Your task to perform on an android device: Show me productivity apps on the Play Store Image 0: 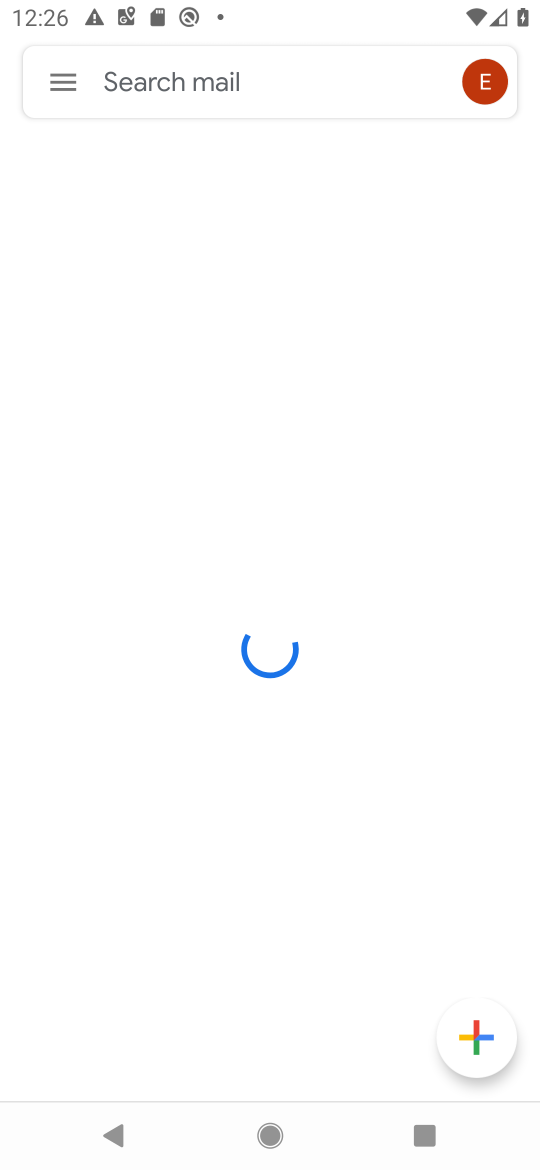
Step 0: press home button
Your task to perform on an android device: Show me productivity apps on the Play Store Image 1: 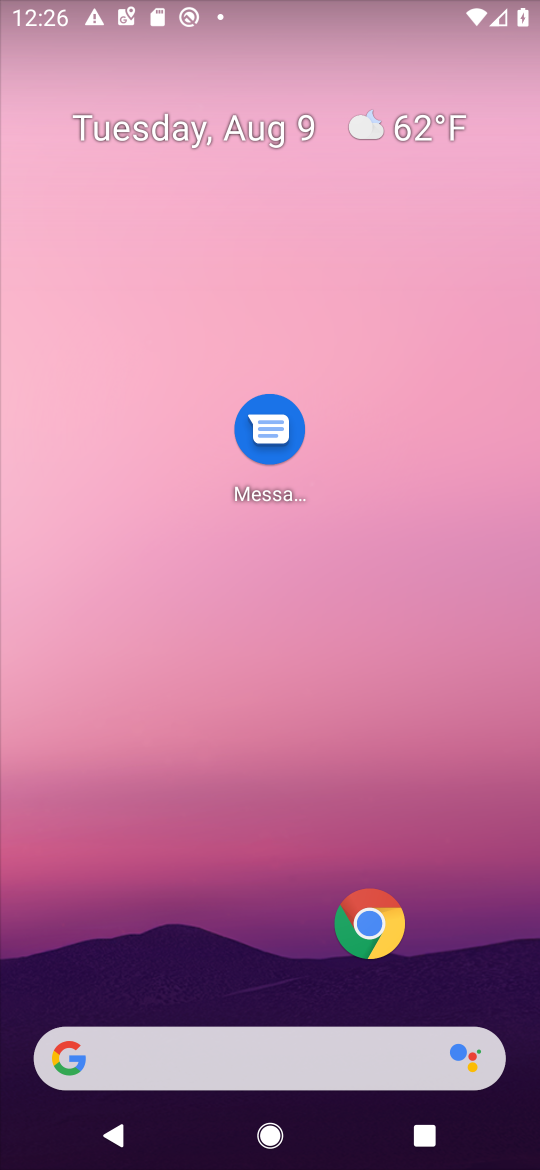
Step 1: drag from (104, 705) to (142, 190)
Your task to perform on an android device: Show me productivity apps on the Play Store Image 2: 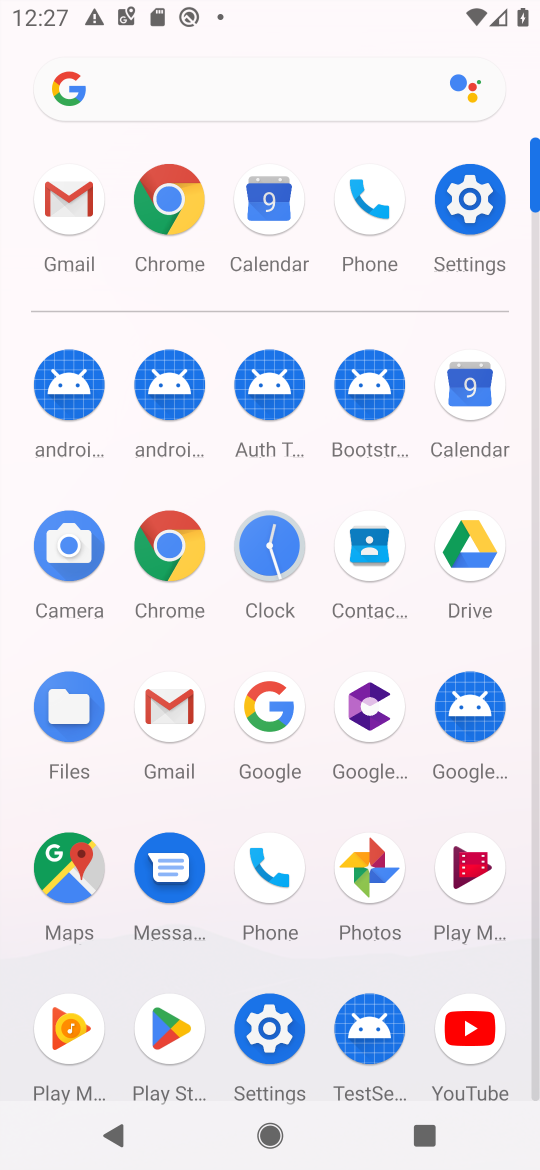
Step 2: click (159, 1038)
Your task to perform on an android device: Show me productivity apps on the Play Store Image 3: 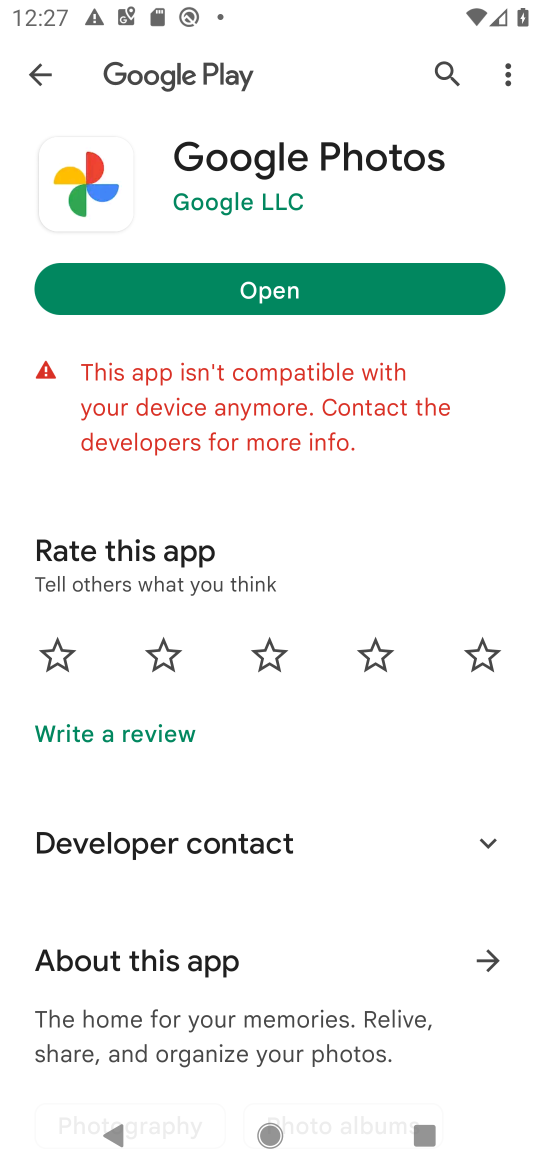
Step 3: click (46, 75)
Your task to perform on an android device: Show me productivity apps on the Play Store Image 4: 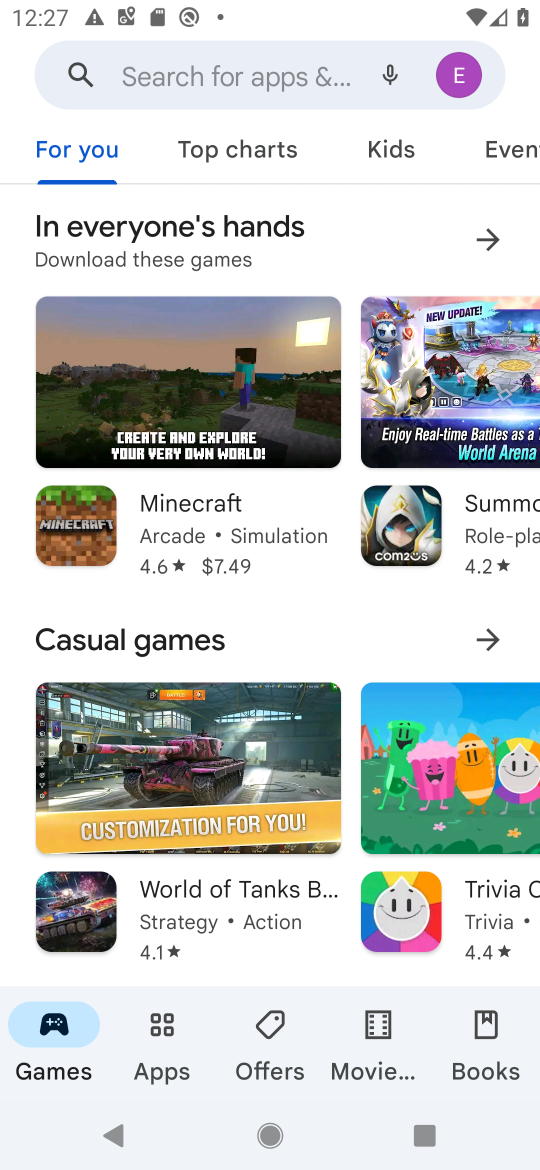
Step 4: click (137, 55)
Your task to perform on an android device: Show me productivity apps on the Play Store Image 5: 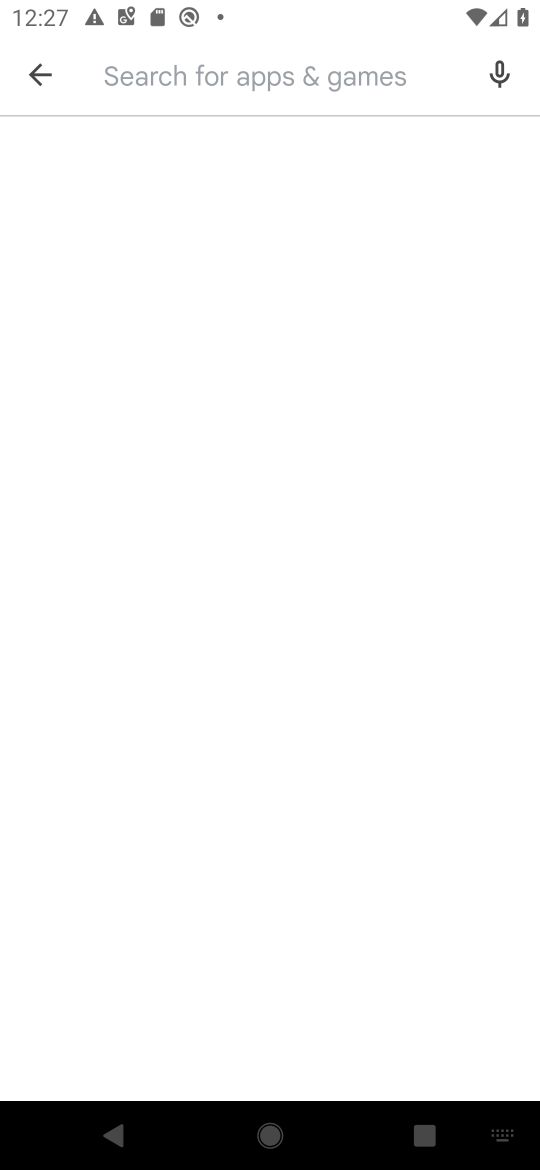
Step 5: type "productivity apps "
Your task to perform on an android device: Show me productivity apps on the Play Store Image 6: 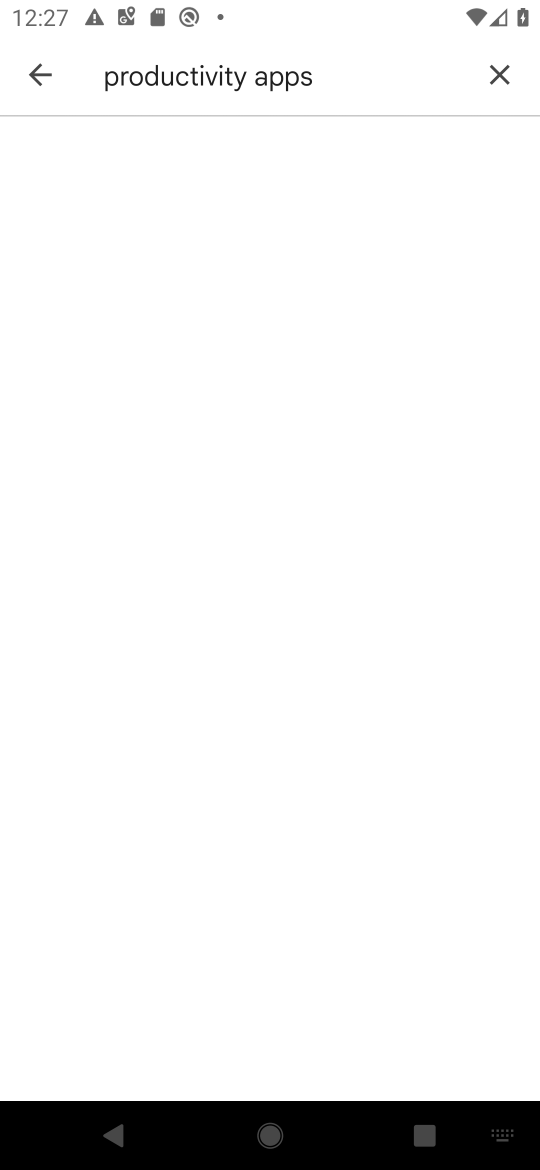
Step 6: type ""
Your task to perform on an android device: Show me productivity apps on the Play Store Image 7: 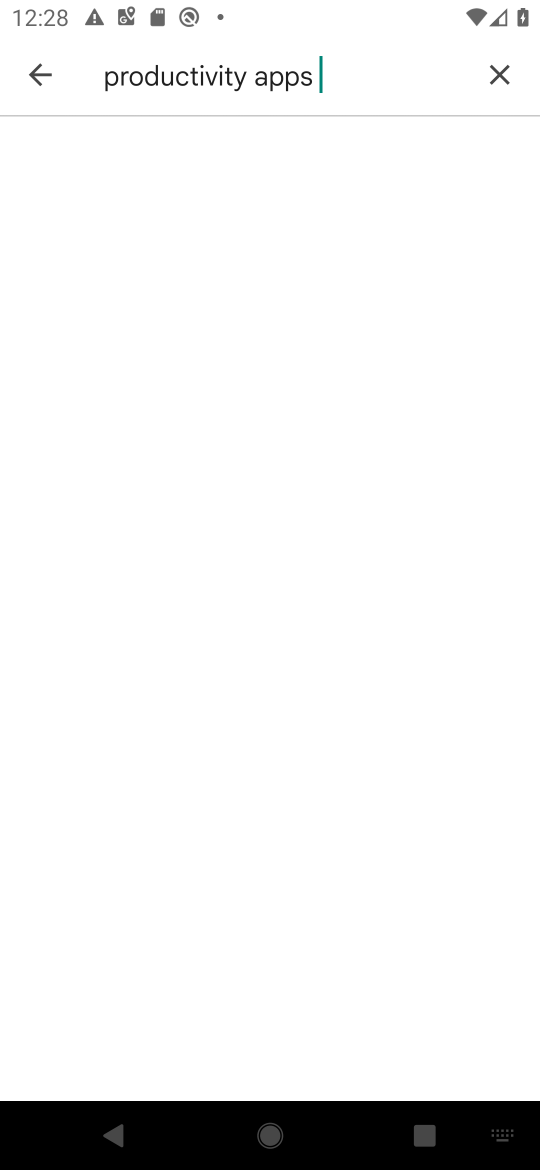
Step 7: task complete